Your task to perform on an android device: Open Yahoo.com Image 0: 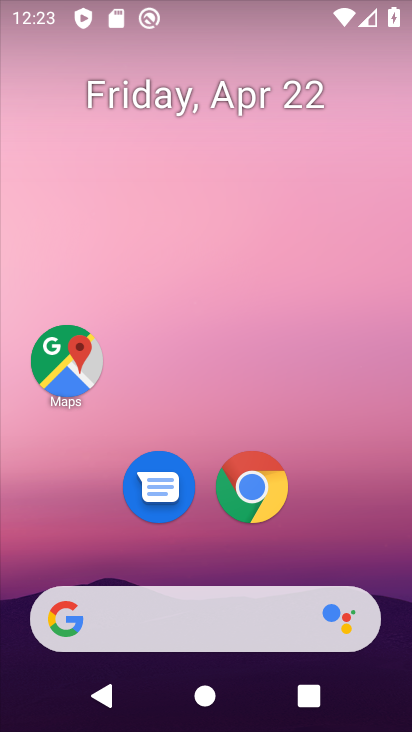
Step 0: drag from (375, 414) to (408, 451)
Your task to perform on an android device: Open Yahoo.com Image 1: 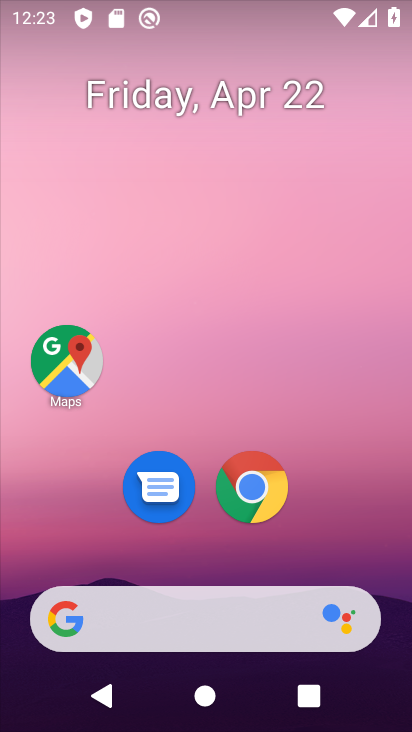
Step 1: click (264, 490)
Your task to perform on an android device: Open Yahoo.com Image 2: 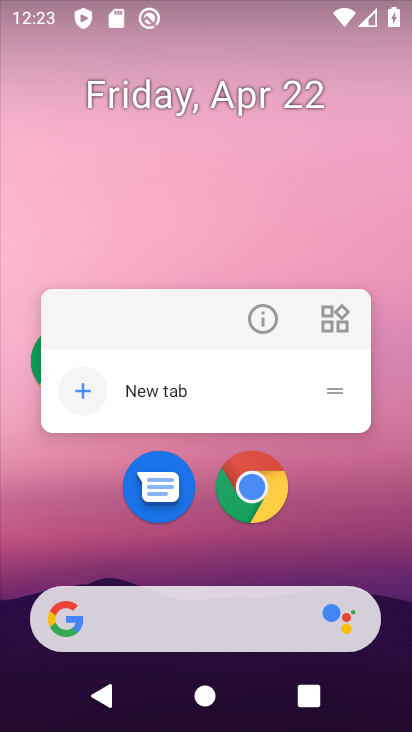
Step 2: click (264, 490)
Your task to perform on an android device: Open Yahoo.com Image 3: 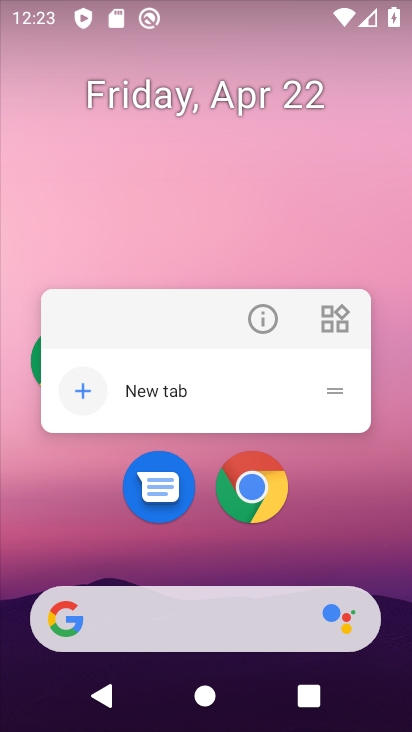
Step 3: click (264, 490)
Your task to perform on an android device: Open Yahoo.com Image 4: 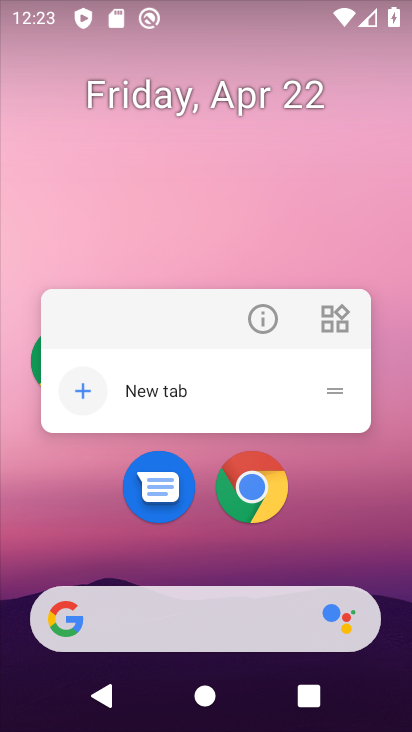
Step 4: click (264, 489)
Your task to perform on an android device: Open Yahoo.com Image 5: 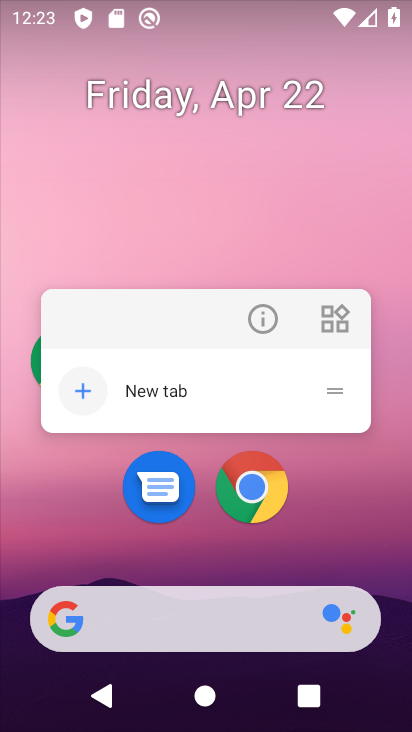
Step 5: click (264, 489)
Your task to perform on an android device: Open Yahoo.com Image 6: 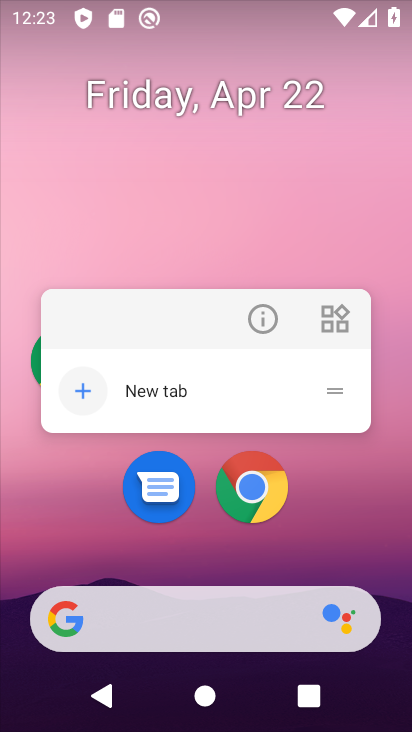
Step 6: click (264, 487)
Your task to perform on an android device: Open Yahoo.com Image 7: 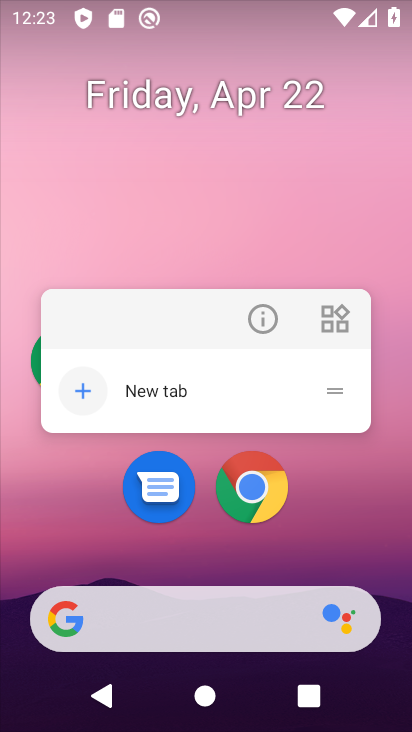
Step 7: click (264, 487)
Your task to perform on an android device: Open Yahoo.com Image 8: 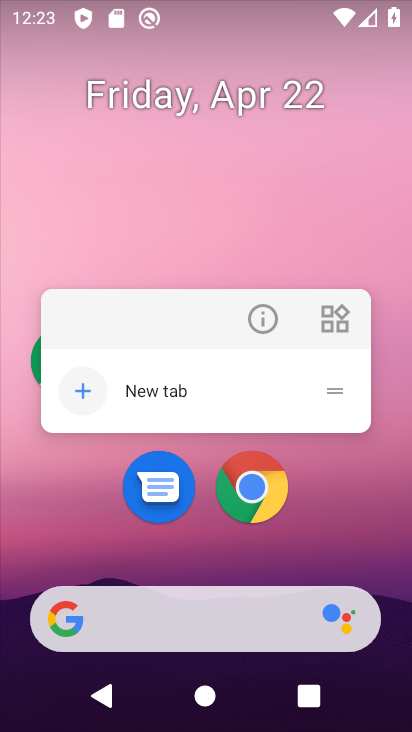
Step 8: click (264, 487)
Your task to perform on an android device: Open Yahoo.com Image 9: 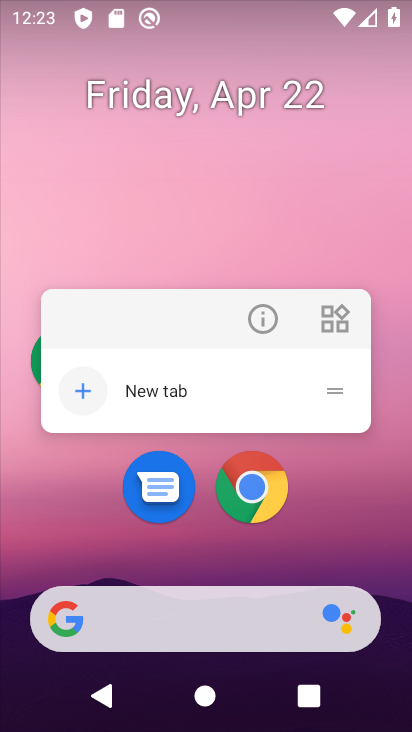
Step 9: click (264, 486)
Your task to perform on an android device: Open Yahoo.com Image 10: 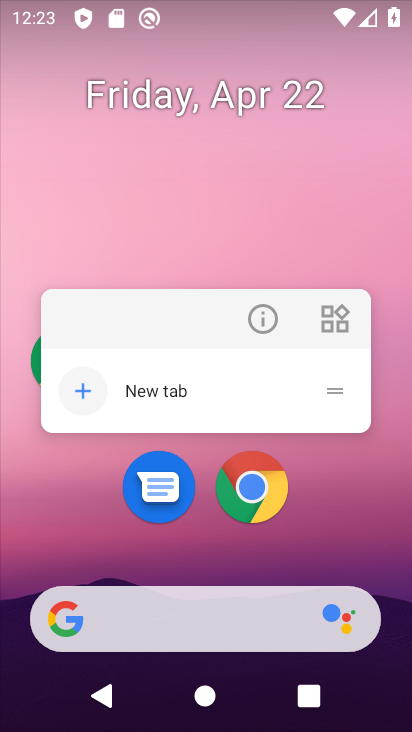
Step 10: click (264, 486)
Your task to perform on an android device: Open Yahoo.com Image 11: 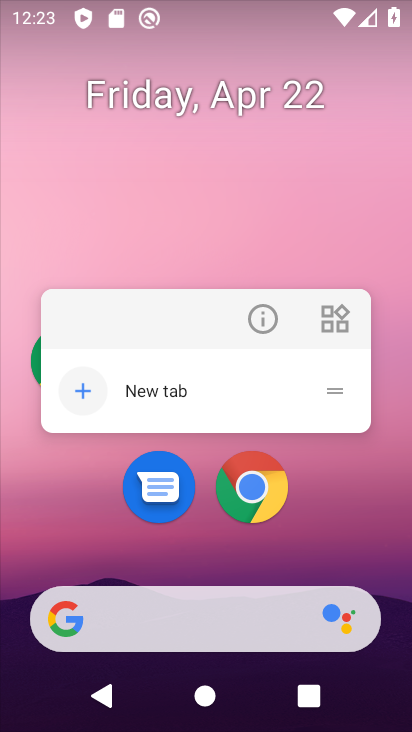
Step 11: click (264, 486)
Your task to perform on an android device: Open Yahoo.com Image 12: 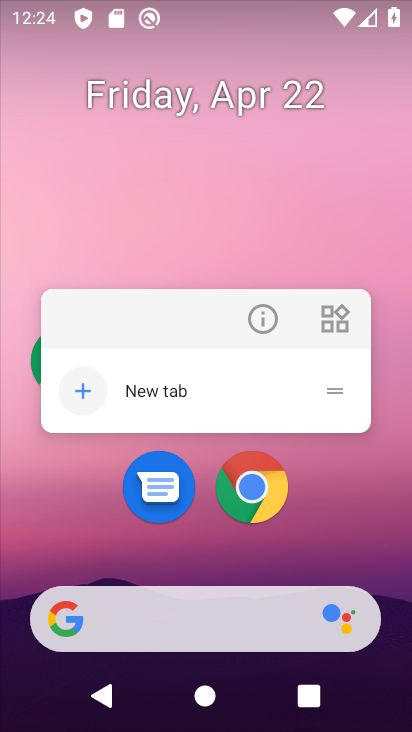
Step 12: click (264, 486)
Your task to perform on an android device: Open Yahoo.com Image 13: 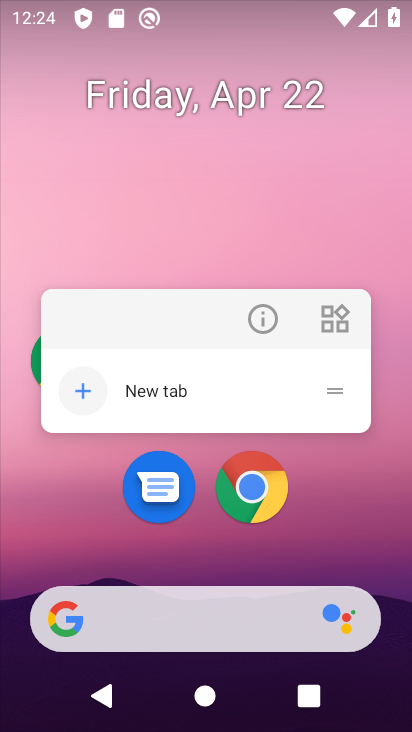
Step 13: click (262, 486)
Your task to perform on an android device: Open Yahoo.com Image 14: 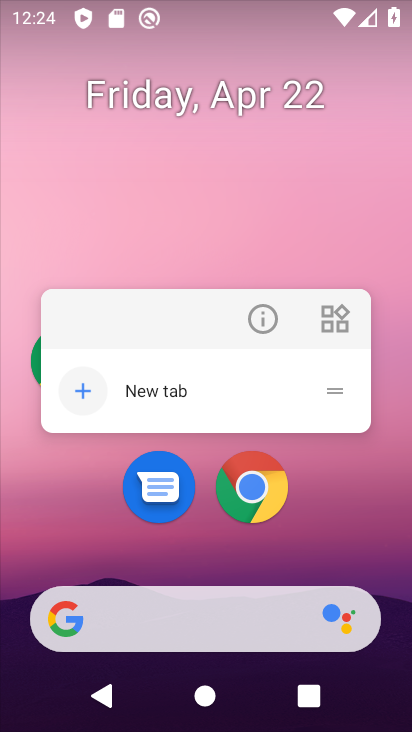
Step 14: click (262, 486)
Your task to perform on an android device: Open Yahoo.com Image 15: 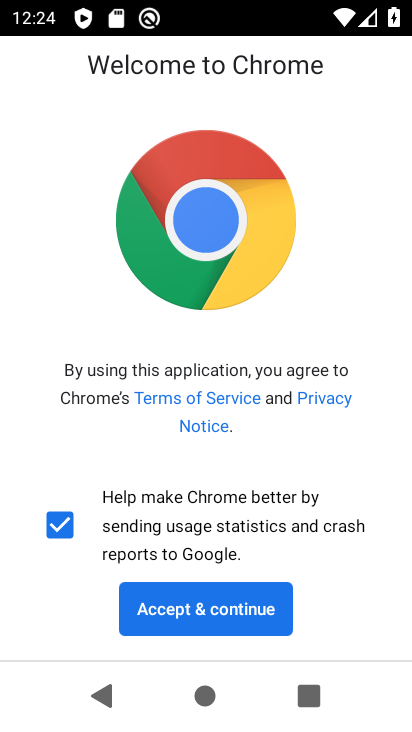
Step 15: click (235, 602)
Your task to perform on an android device: Open Yahoo.com Image 16: 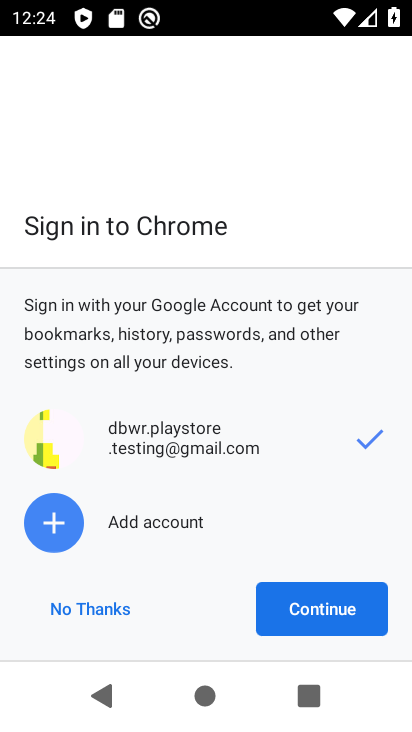
Step 16: click (109, 604)
Your task to perform on an android device: Open Yahoo.com Image 17: 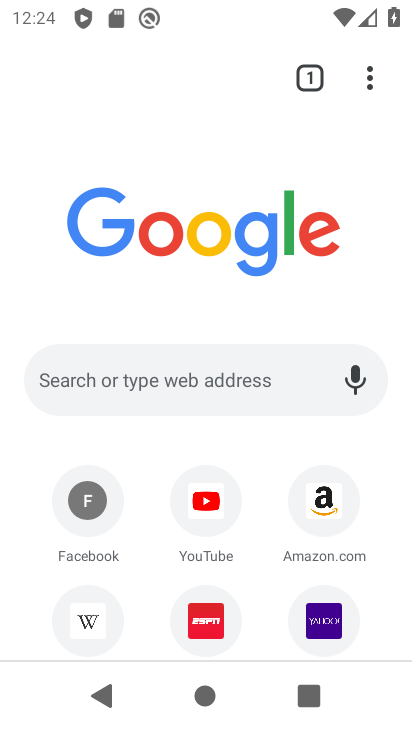
Step 17: click (321, 621)
Your task to perform on an android device: Open Yahoo.com Image 18: 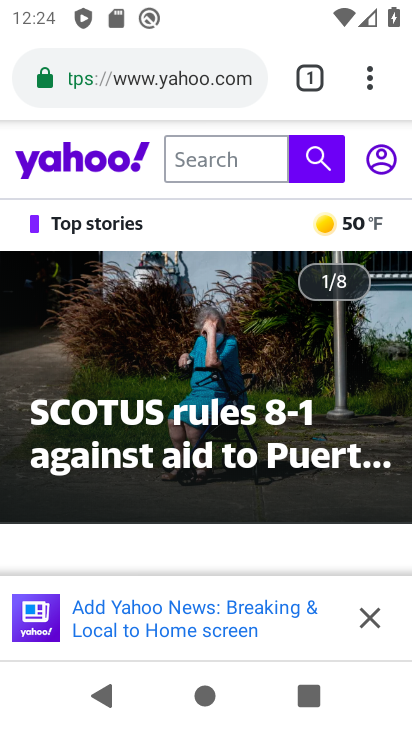
Step 18: task complete